Your task to perform on an android device: Show the shopping cart on target.com. Image 0: 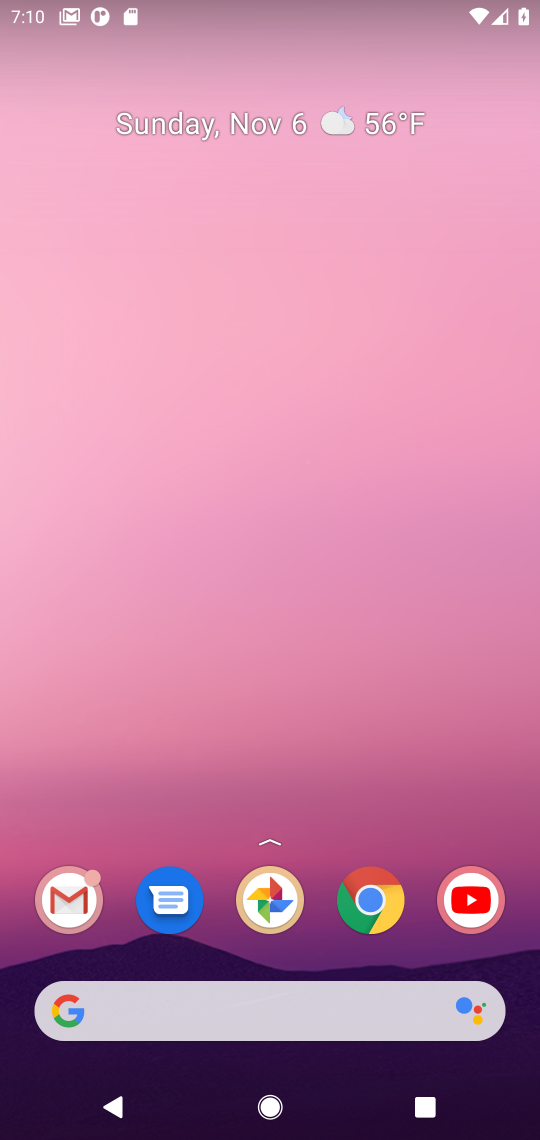
Step 0: drag from (325, 966) to (252, 140)
Your task to perform on an android device: Show the shopping cart on target.com. Image 1: 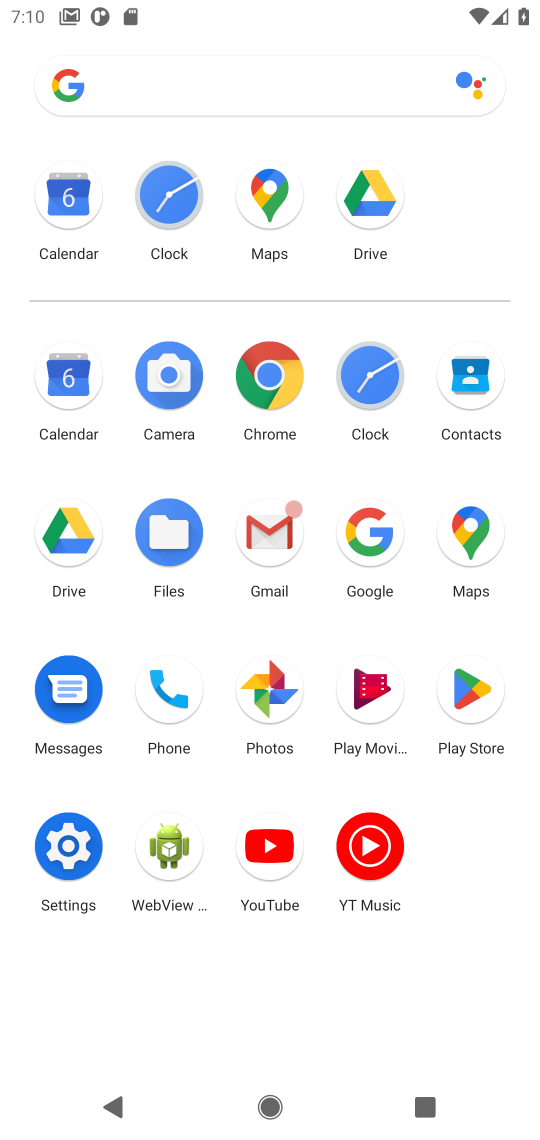
Step 1: click (276, 378)
Your task to perform on an android device: Show the shopping cart on target.com. Image 2: 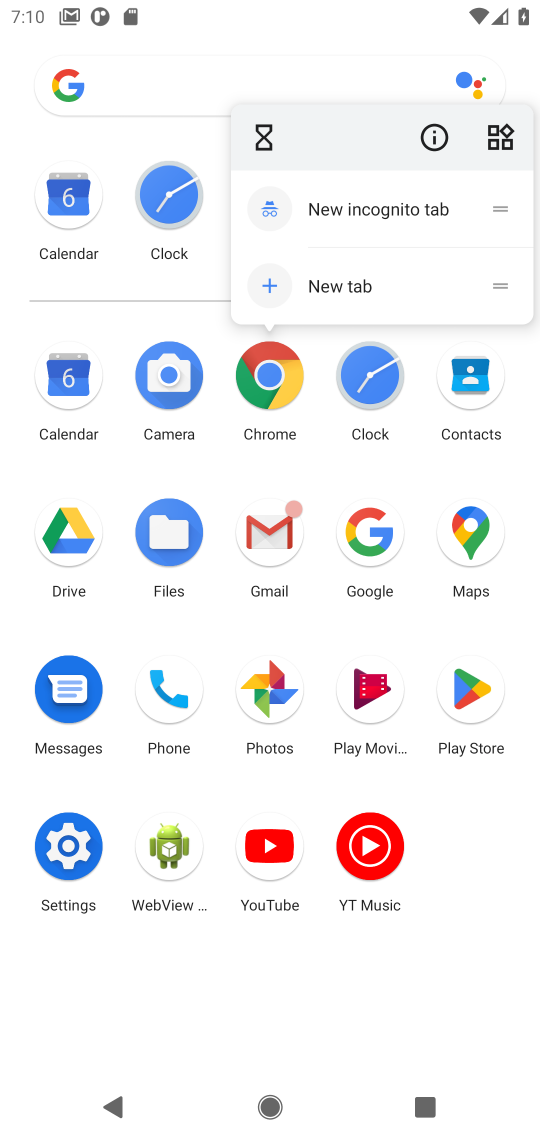
Step 2: click (276, 378)
Your task to perform on an android device: Show the shopping cart on target.com. Image 3: 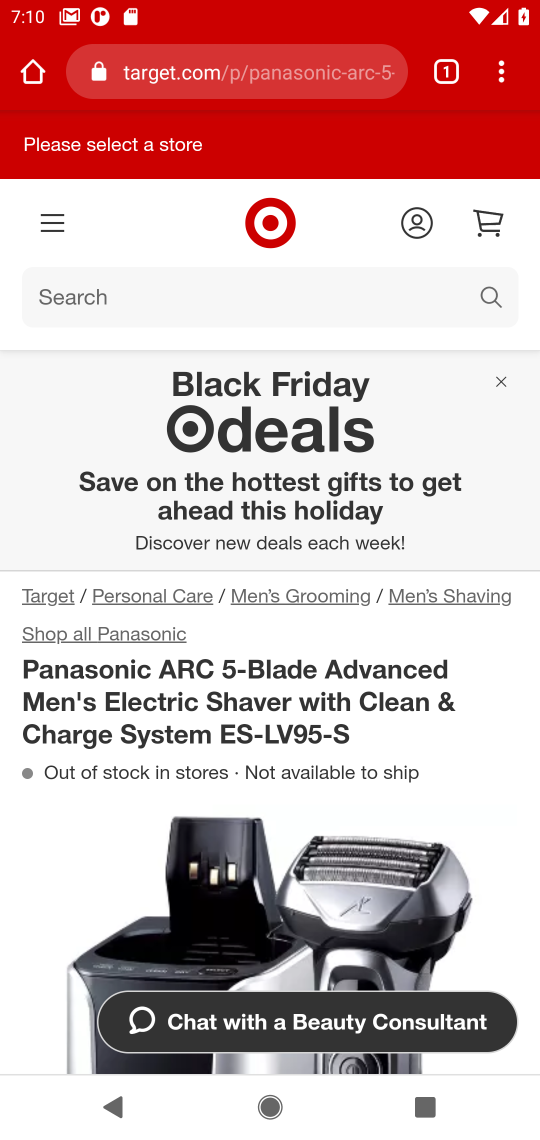
Step 3: click (475, 225)
Your task to perform on an android device: Show the shopping cart on target.com. Image 4: 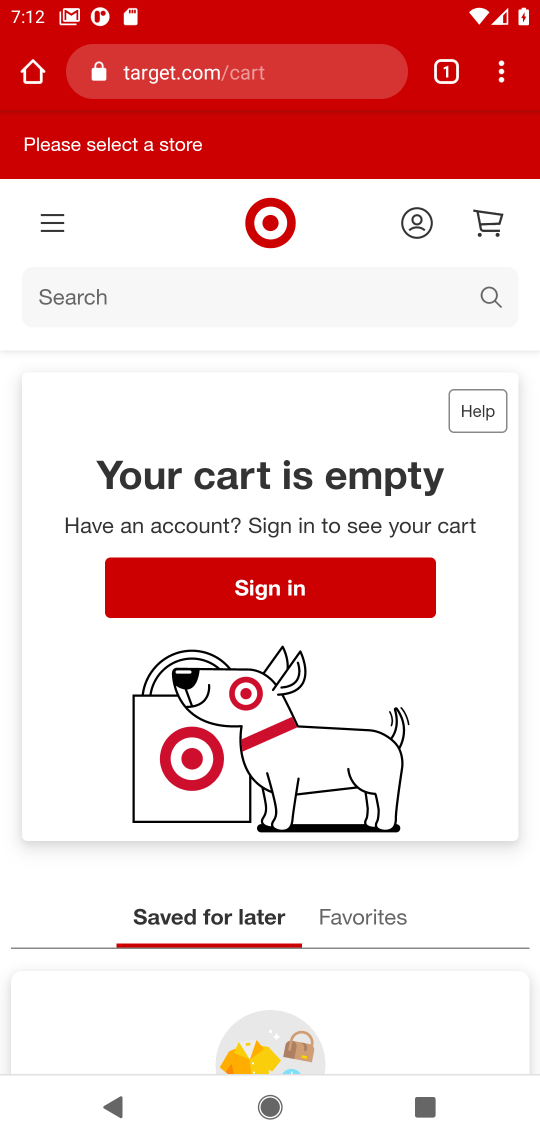
Step 4: task complete